Your task to perform on an android device: View the shopping cart on newegg.com. Add "amazon basics triple a" to the cart on newegg.com, then select checkout. Image 0: 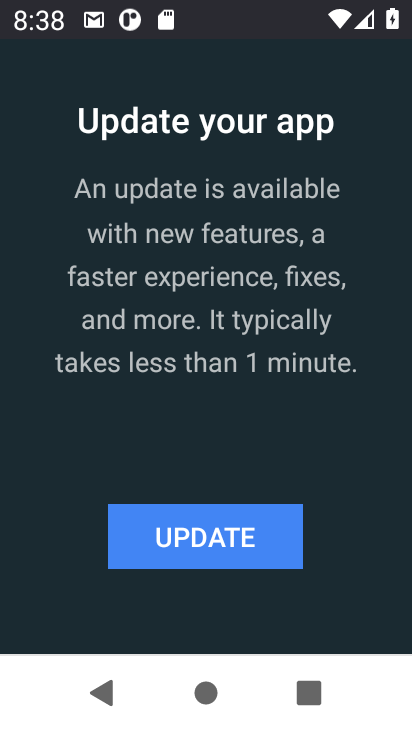
Step 0: press home button
Your task to perform on an android device: View the shopping cart on newegg.com. Add "amazon basics triple a" to the cart on newegg.com, then select checkout. Image 1: 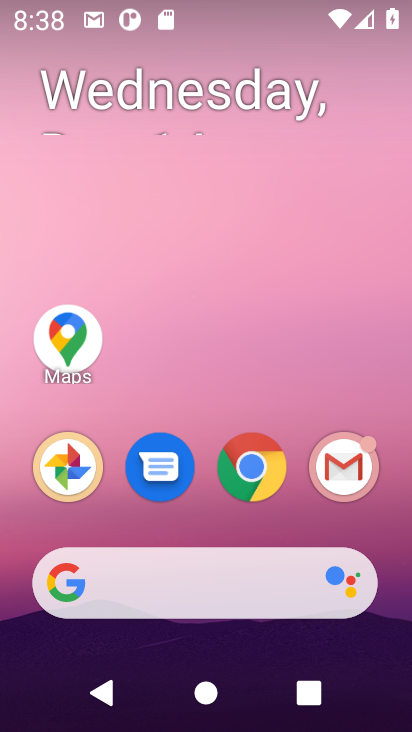
Step 1: click (246, 482)
Your task to perform on an android device: View the shopping cart on newegg.com. Add "amazon basics triple a" to the cart on newegg.com, then select checkout. Image 2: 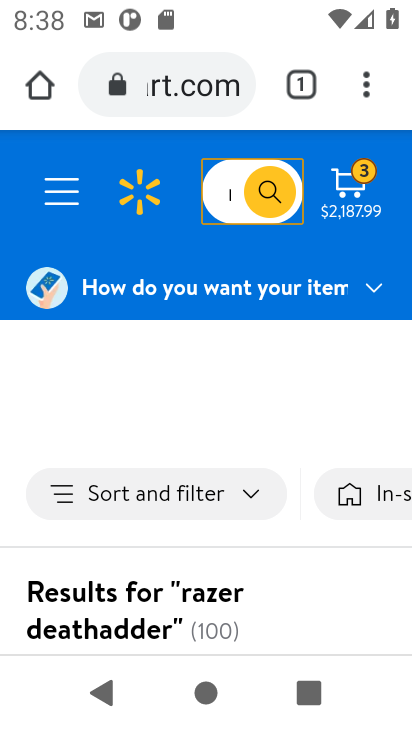
Step 2: click (238, 189)
Your task to perform on an android device: View the shopping cart on newegg.com. Add "amazon basics triple a" to the cart on newegg.com, then select checkout. Image 3: 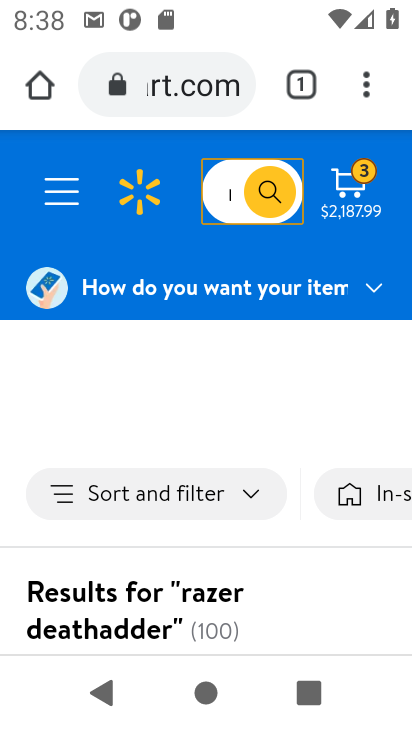
Step 3: click (238, 189)
Your task to perform on an android device: View the shopping cart on newegg.com. Add "amazon basics triple a" to the cart on newegg.com, then select checkout. Image 4: 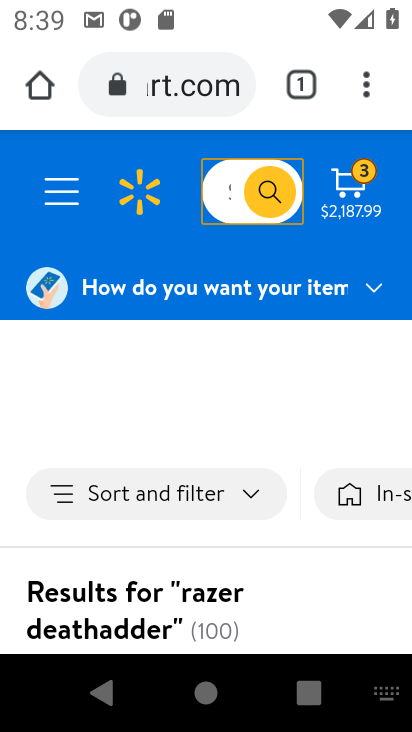
Step 4: click (144, 76)
Your task to perform on an android device: View the shopping cart on newegg.com. Add "amazon basics triple a" to the cart on newegg.com, then select checkout. Image 5: 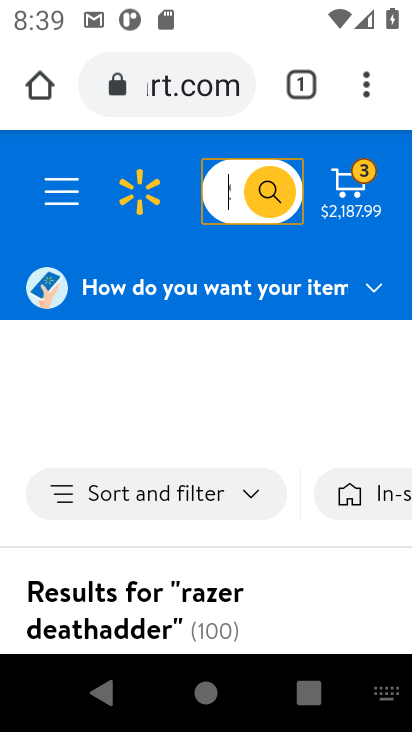
Step 5: click (210, 79)
Your task to perform on an android device: View the shopping cart on newegg.com. Add "amazon basics triple a" to the cart on newegg.com, then select checkout. Image 6: 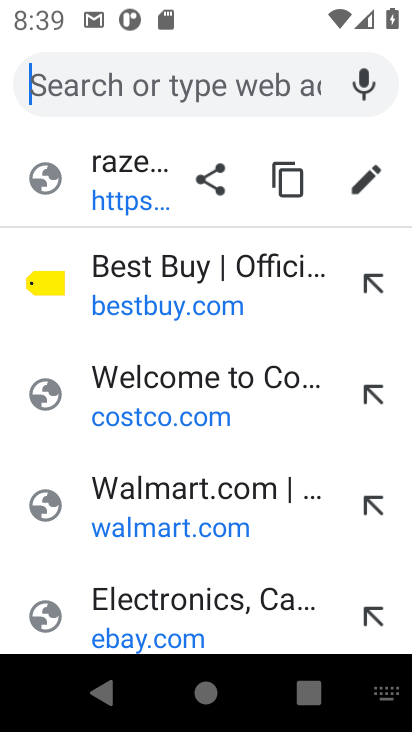
Step 6: type "newegg"
Your task to perform on an android device: View the shopping cart on newegg.com. Add "amazon basics triple a" to the cart on newegg.com, then select checkout. Image 7: 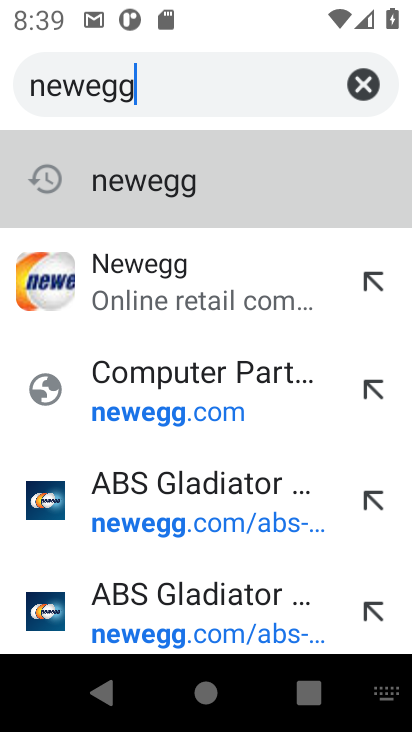
Step 7: click (152, 276)
Your task to perform on an android device: View the shopping cart on newegg.com. Add "amazon basics triple a" to the cart on newegg.com, then select checkout. Image 8: 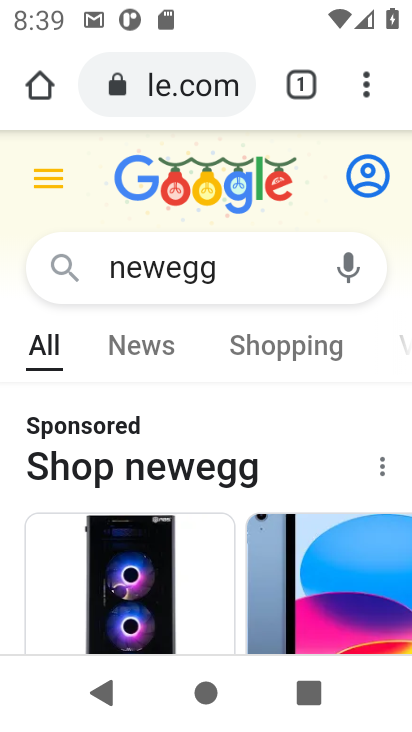
Step 8: drag from (294, 437) to (311, 111)
Your task to perform on an android device: View the shopping cart on newegg.com. Add "amazon basics triple a" to the cart on newegg.com, then select checkout. Image 9: 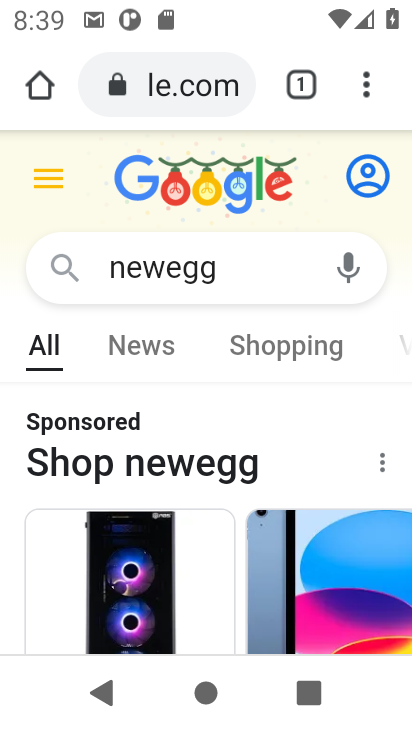
Step 9: drag from (281, 471) to (276, 194)
Your task to perform on an android device: View the shopping cart on newegg.com. Add "amazon basics triple a" to the cart on newegg.com, then select checkout. Image 10: 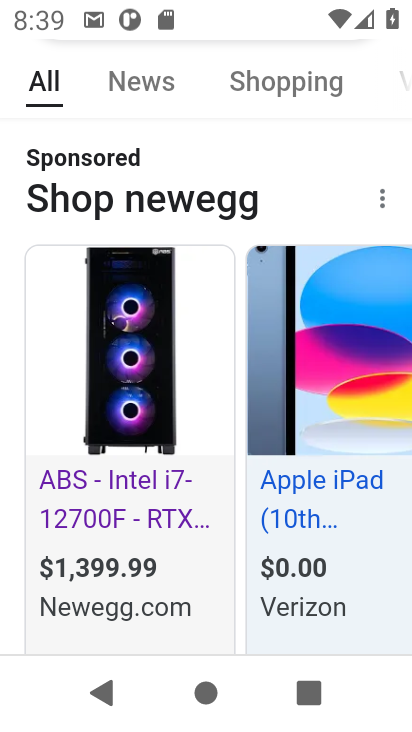
Step 10: click (189, 612)
Your task to perform on an android device: View the shopping cart on newegg.com. Add "amazon basics triple a" to the cart on newegg.com, then select checkout. Image 11: 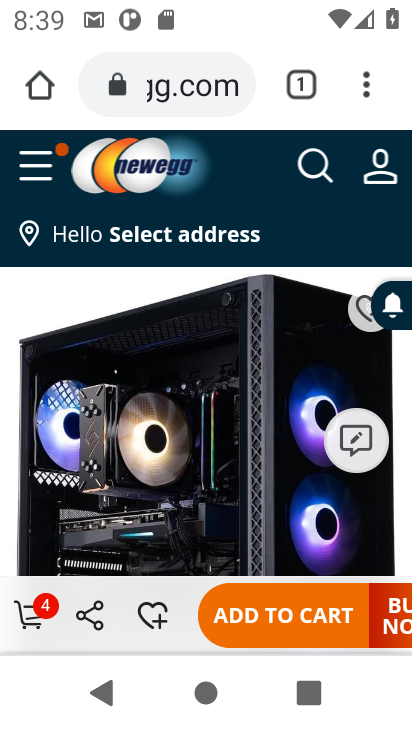
Step 11: click (318, 179)
Your task to perform on an android device: View the shopping cart on newegg.com. Add "amazon basics triple a" to the cart on newegg.com, then select checkout. Image 12: 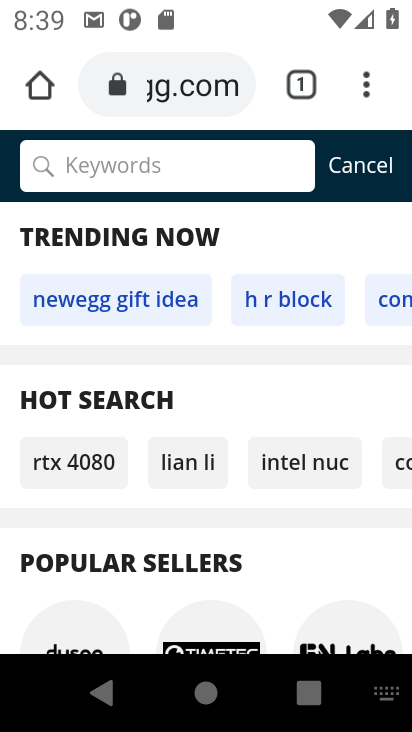
Step 12: type "amazon basic triple a"
Your task to perform on an android device: View the shopping cart on newegg.com. Add "amazon basics triple a" to the cart on newegg.com, then select checkout. Image 13: 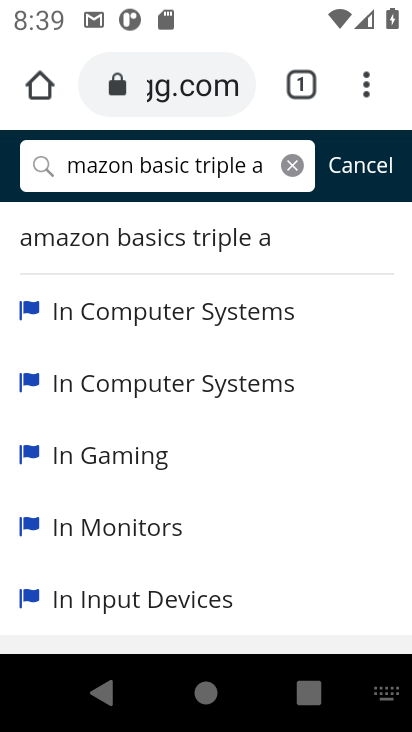
Step 13: click (206, 264)
Your task to perform on an android device: View the shopping cart on newegg.com. Add "amazon basics triple a" to the cart on newegg.com, then select checkout. Image 14: 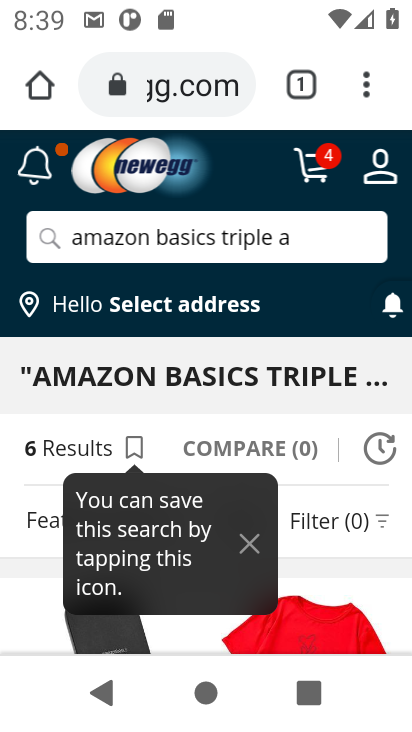
Step 14: click (151, 619)
Your task to perform on an android device: View the shopping cart on newegg.com. Add "amazon basics triple a" to the cart on newegg.com, then select checkout. Image 15: 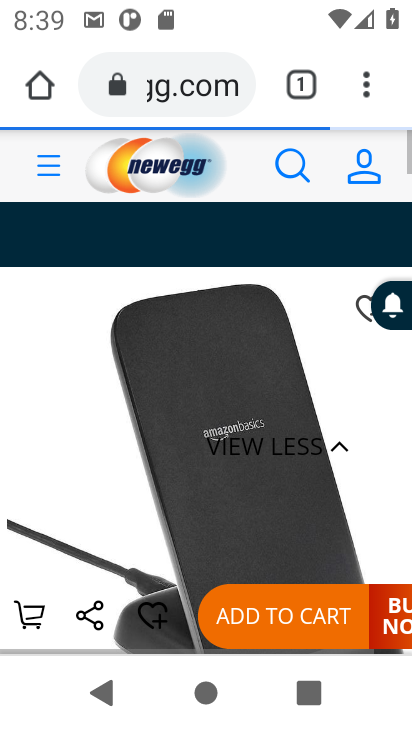
Step 15: task complete